Your task to perform on an android device: toggle priority inbox in the gmail app Image 0: 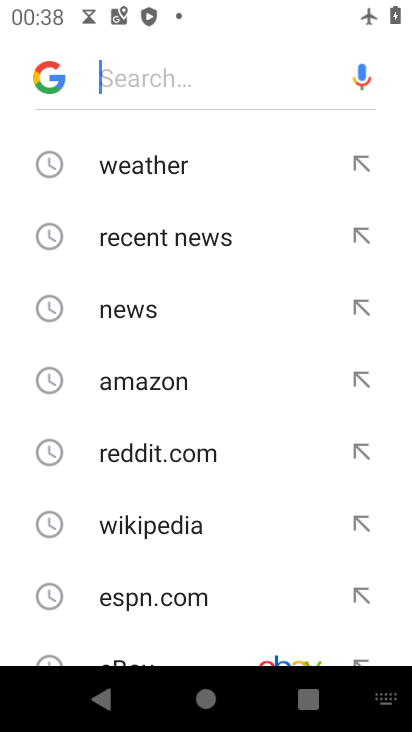
Step 0: press home button
Your task to perform on an android device: toggle priority inbox in the gmail app Image 1: 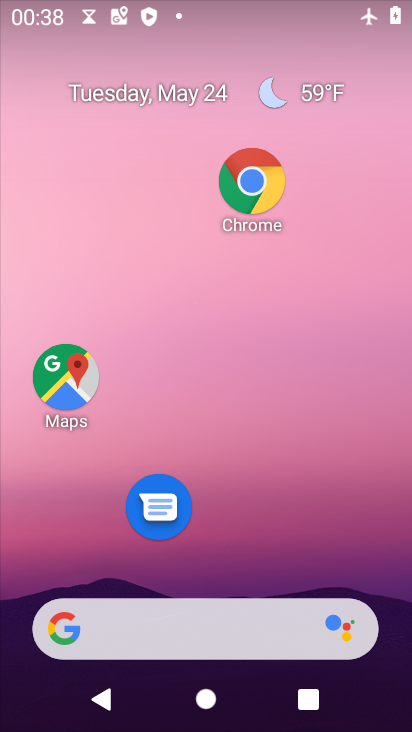
Step 1: drag from (284, 480) to (336, 209)
Your task to perform on an android device: toggle priority inbox in the gmail app Image 2: 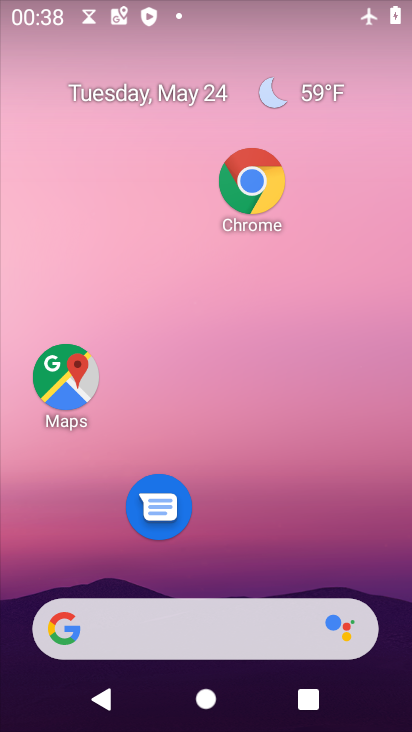
Step 2: drag from (270, 548) to (307, 287)
Your task to perform on an android device: toggle priority inbox in the gmail app Image 3: 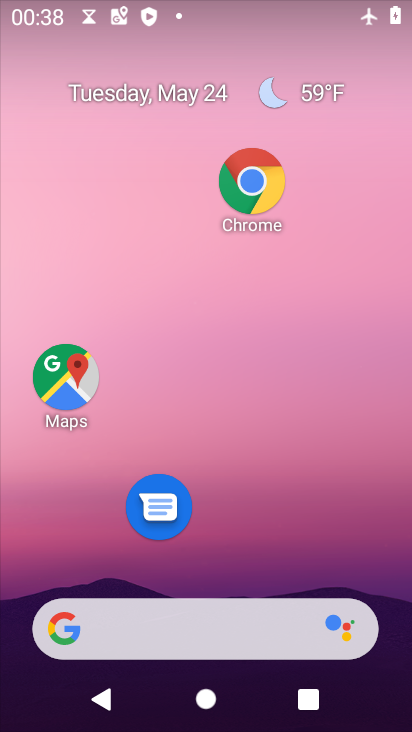
Step 3: drag from (275, 539) to (326, 217)
Your task to perform on an android device: toggle priority inbox in the gmail app Image 4: 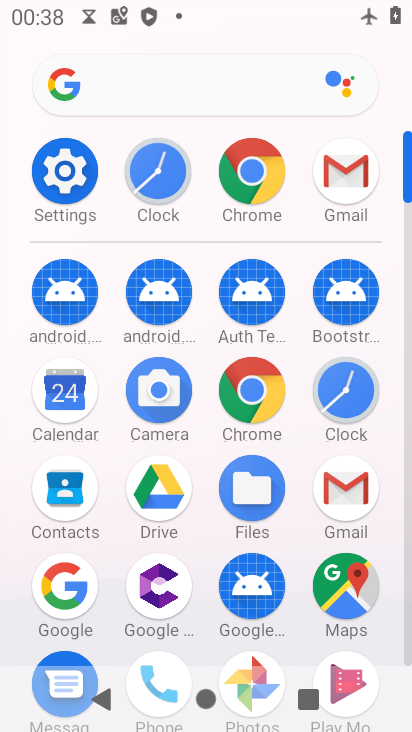
Step 4: click (338, 483)
Your task to perform on an android device: toggle priority inbox in the gmail app Image 5: 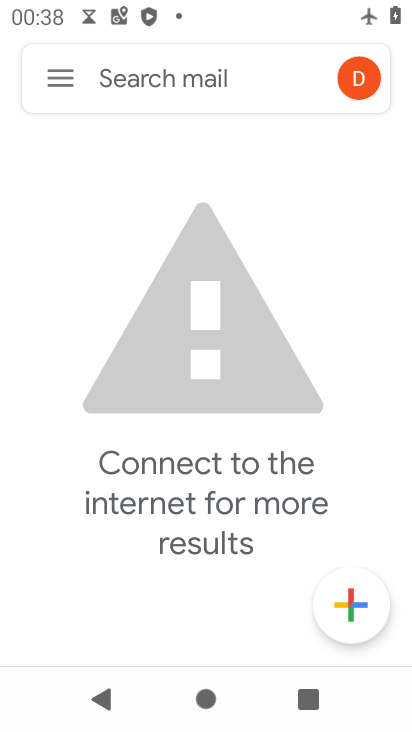
Step 5: click (51, 86)
Your task to perform on an android device: toggle priority inbox in the gmail app Image 6: 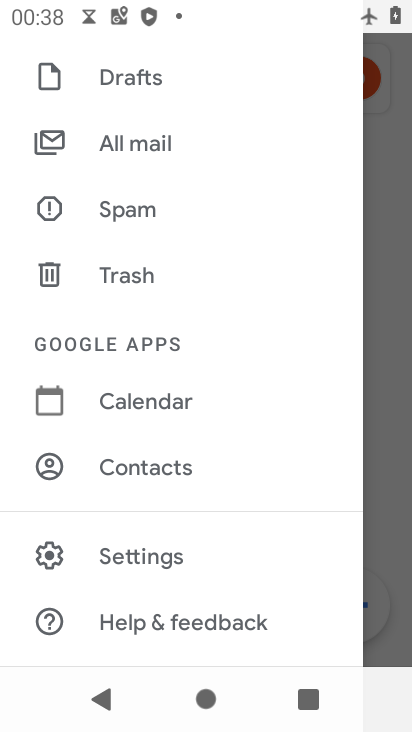
Step 6: click (168, 559)
Your task to perform on an android device: toggle priority inbox in the gmail app Image 7: 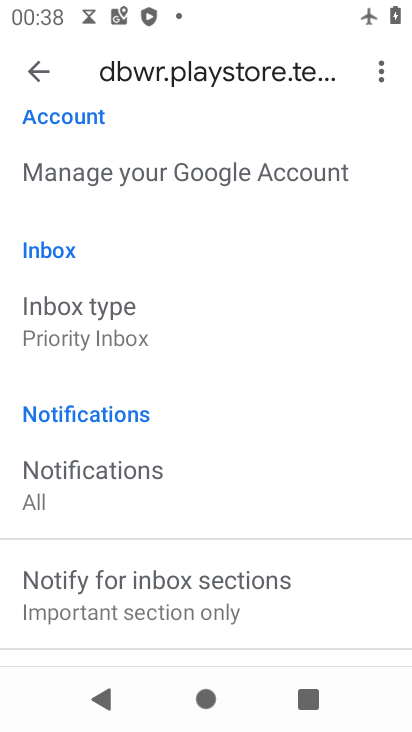
Step 7: click (116, 329)
Your task to perform on an android device: toggle priority inbox in the gmail app Image 8: 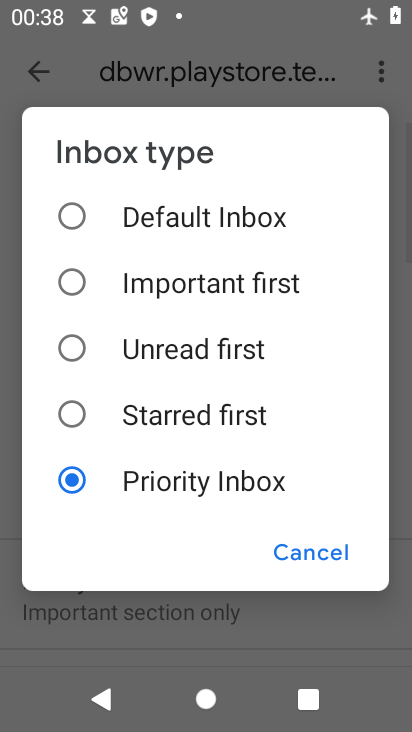
Step 8: click (146, 227)
Your task to perform on an android device: toggle priority inbox in the gmail app Image 9: 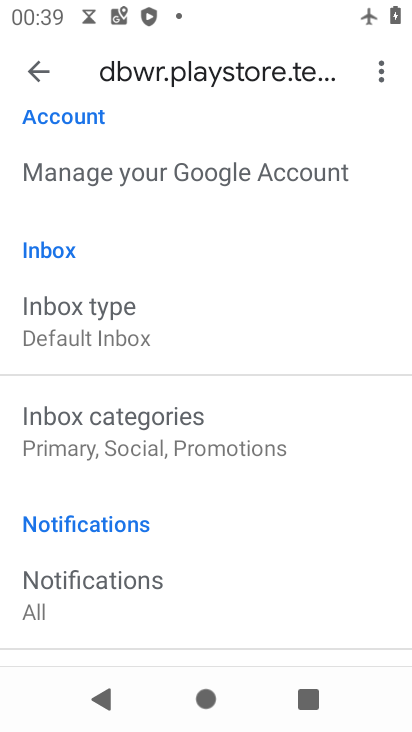
Step 9: task complete